Your task to perform on an android device: Open the web browser Image 0: 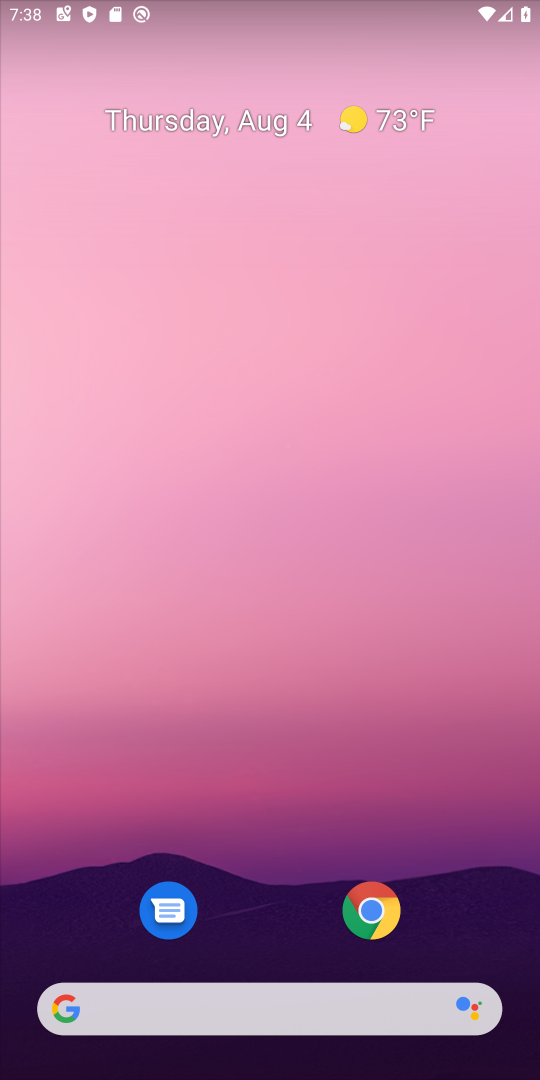
Step 0: drag from (254, 727) to (144, 0)
Your task to perform on an android device: Open the web browser Image 1: 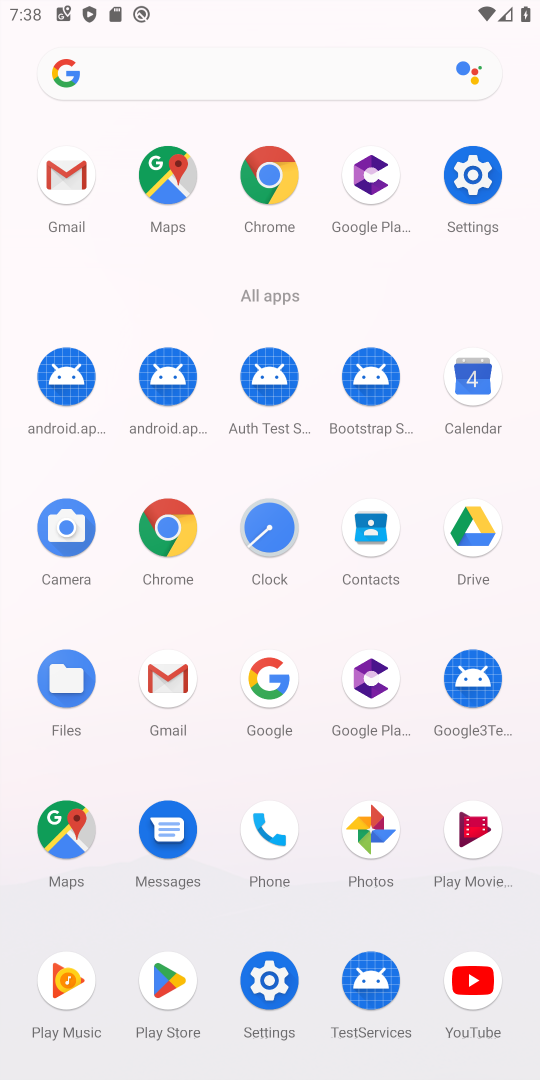
Step 1: click (181, 527)
Your task to perform on an android device: Open the web browser Image 2: 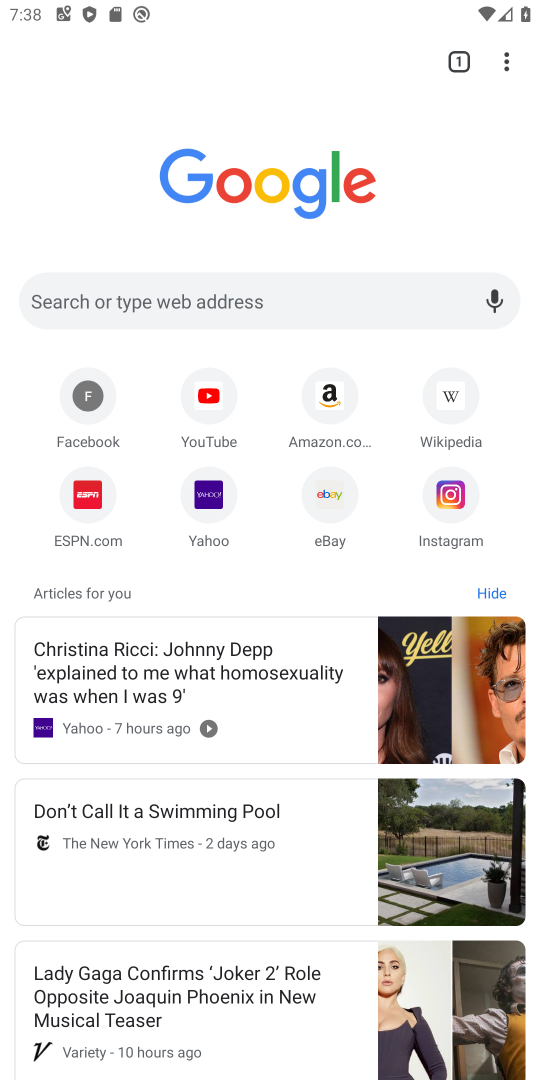
Step 2: task complete